Your task to perform on an android device: toggle improve location accuracy Image 0: 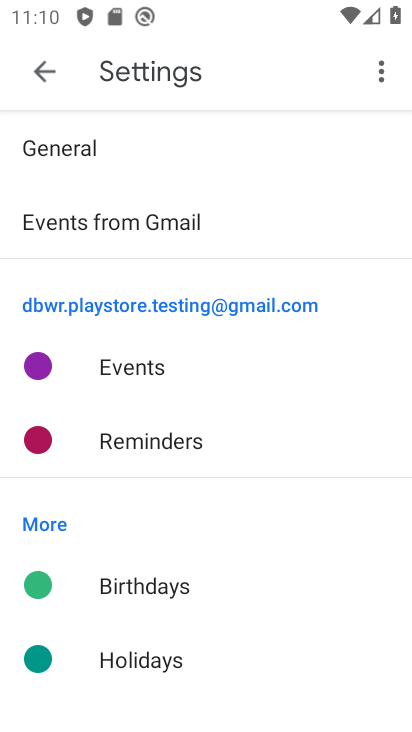
Step 0: press home button
Your task to perform on an android device: toggle improve location accuracy Image 1: 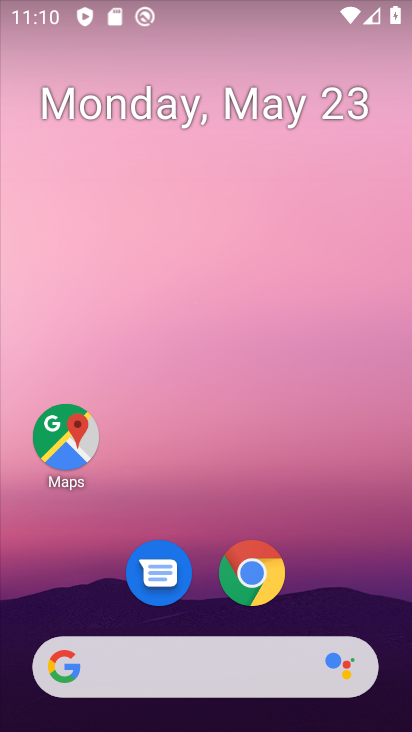
Step 1: drag from (385, 611) to (355, 280)
Your task to perform on an android device: toggle improve location accuracy Image 2: 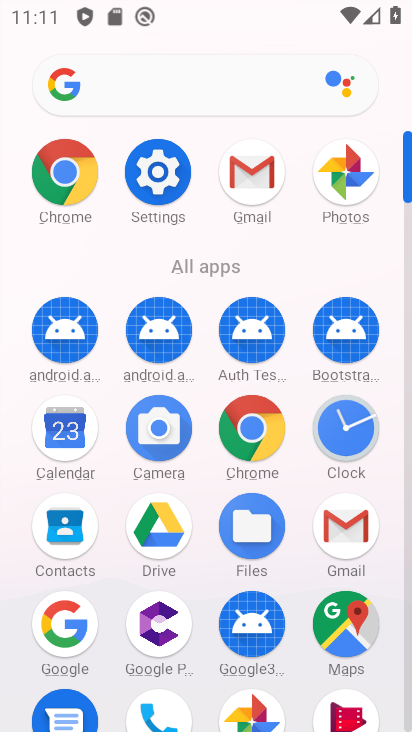
Step 2: drag from (391, 651) to (380, 359)
Your task to perform on an android device: toggle improve location accuracy Image 3: 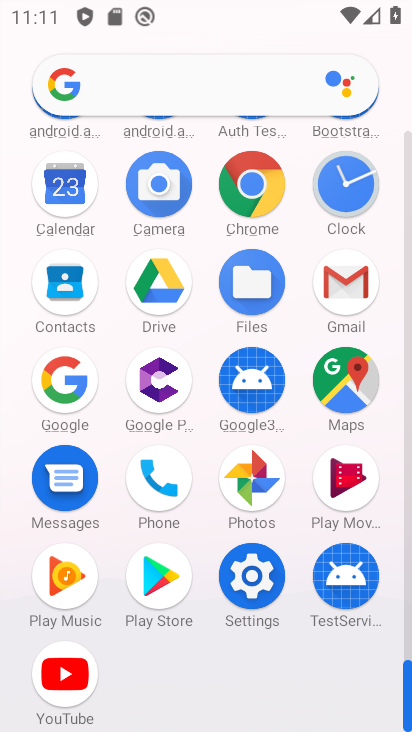
Step 3: click (255, 585)
Your task to perform on an android device: toggle improve location accuracy Image 4: 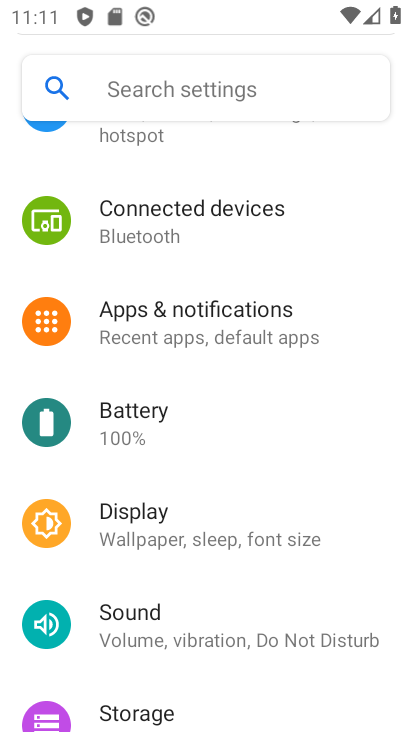
Step 4: drag from (383, 328) to (387, 436)
Your task to perform on an android device: toggle improve location accuracy Image 5: 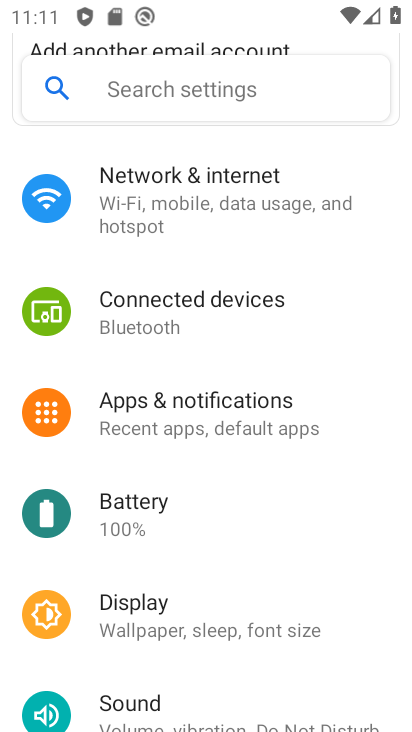
Step 5: drag from (374, 334) to (343, 521)
Your task to perform on an android device: toggle improve location accuracy Image 6: 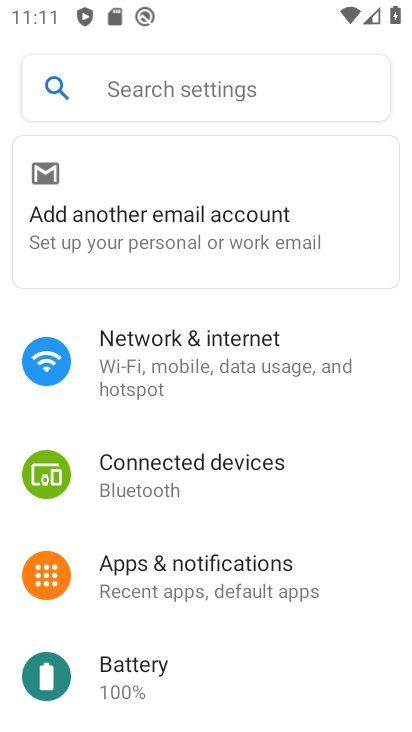
Step 6: drag from (379, 350) to (370, 502)
Your task to perform on an android device: toggle improve location accuracy Image 7: 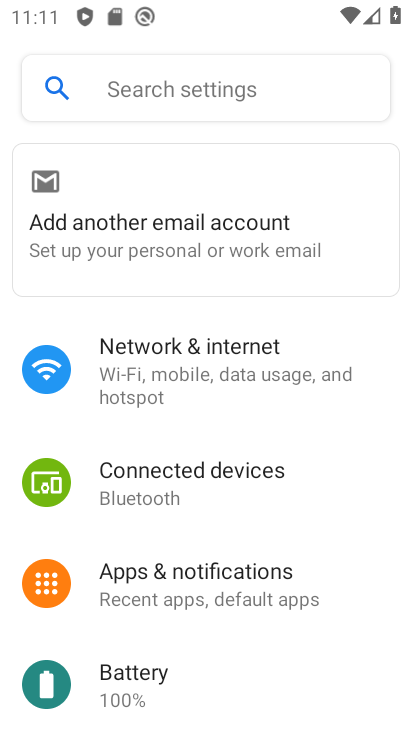
Step 7: drag from (390, 645) to (378, 538)
Your task to perform on an android device: toggle improve location accuracy Image 8: 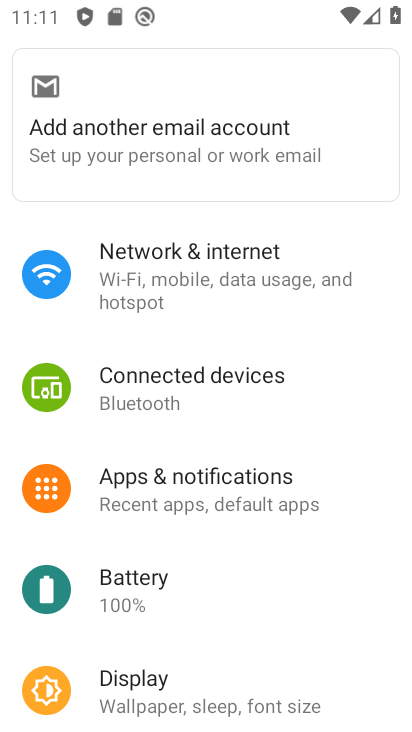
Step 8: drag from (368, 668) to (339, 538)
Your task to perform on an android device: toggle improve location accuracy Image 9: 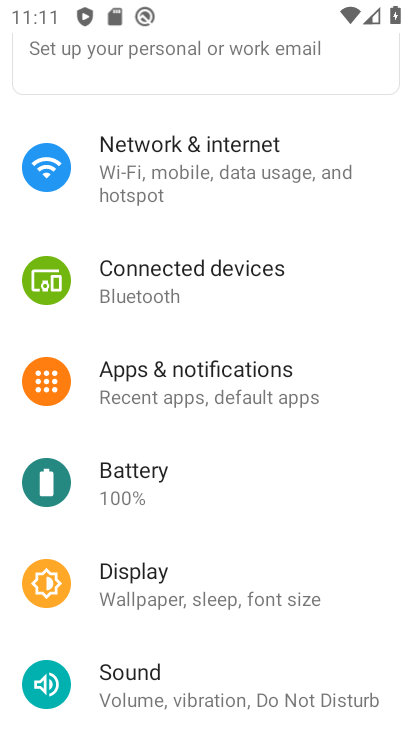
Step 9: drag from (367, 650) to (370, 510)
Your task to perform on an android device: toggle improve location accuracy Image 10: 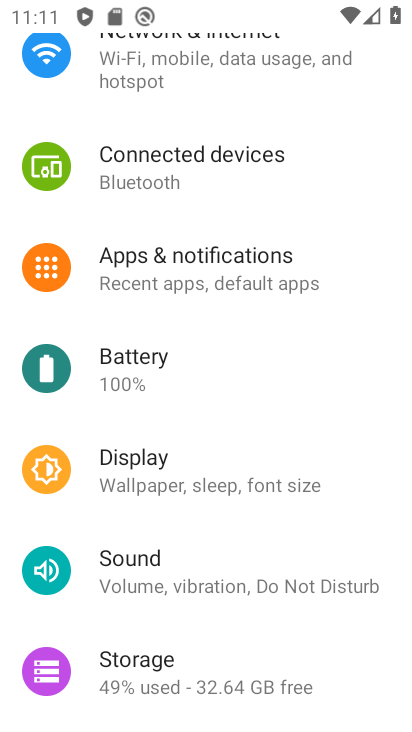
Step 10: drag from (359, 681) to (363, 523)
Your task to perform on an android device: toggle improve location accuracy Image 11: 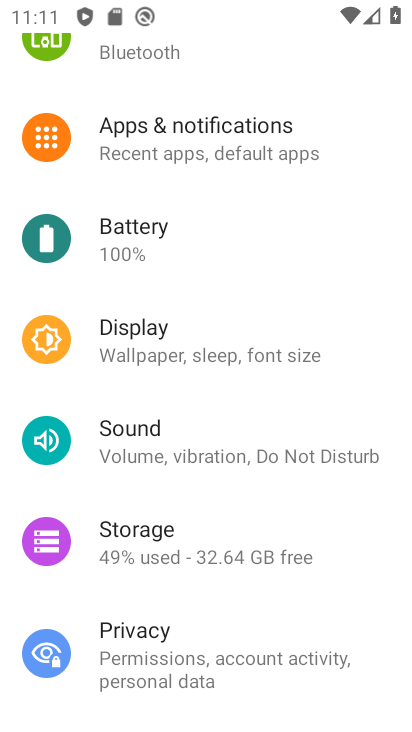
Step 11: drag from (380, 691) to (365, 547)
Your task to perform on an android device: toggle improve location accuracy Image 12: 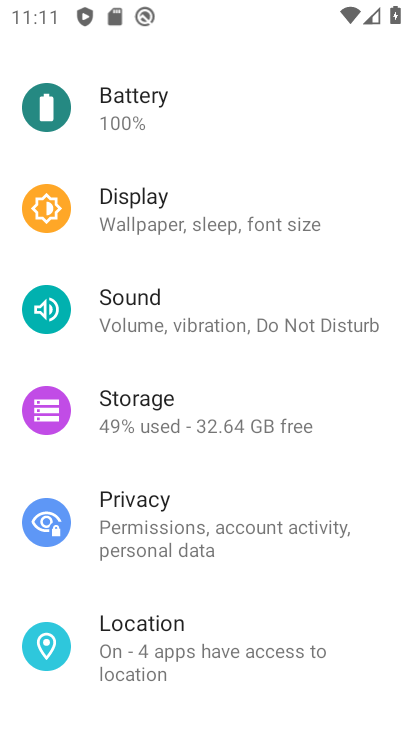
Step 12: drag from (362, 675) to (350, 537)
Your task to perform on an android device: toggle improve location accuracy Image 13: 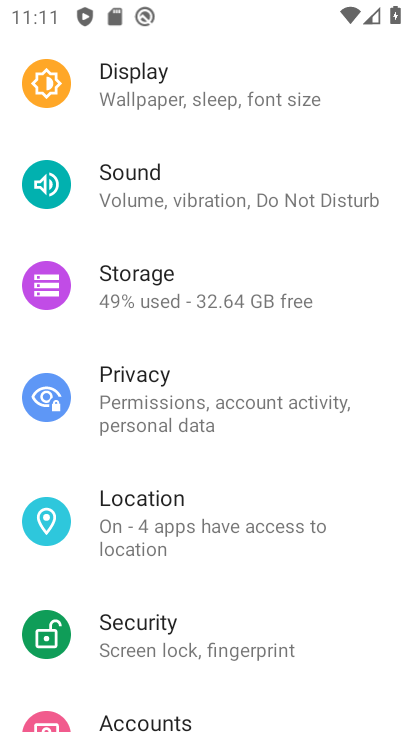
Step 13: drag from (377, 660) to (363, 576)
Your task to perform on an android device: toggle improve location accuracy Image 14: 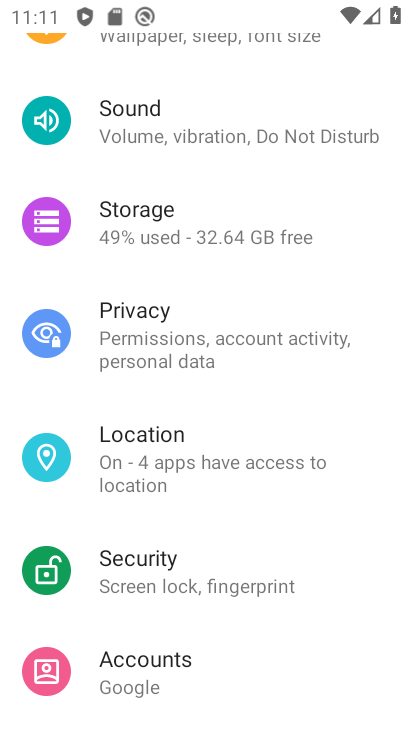
Step 14: click (299, 464)
Your task to perform on an android device: toggle improve location accuracy Image 15: 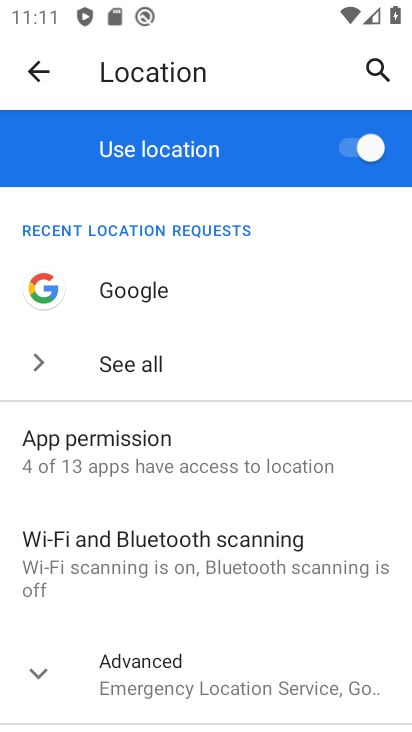
Step 15: click (219, 688)
Your task to perform on an android device: toggle improve location accuracy Image 16: 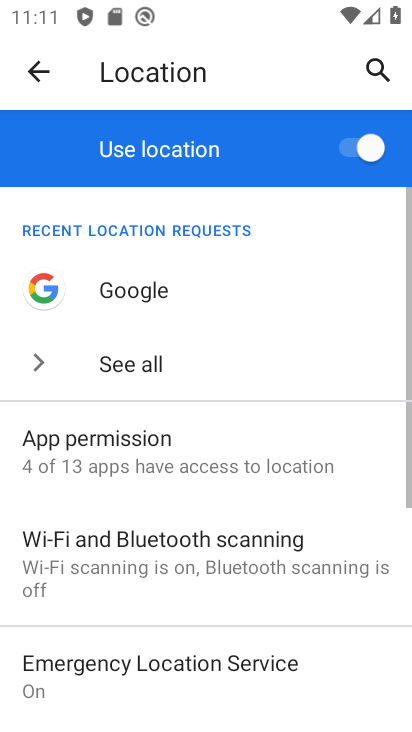
Step 16: drag from (313, 642) to (301, 441)
Your task to perform on an android device: toggle improve location accuracy Image 17: 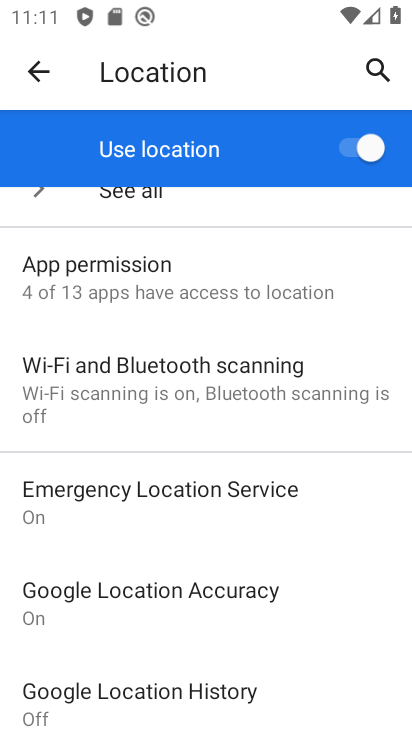
Step 17: drag from (324, 638) to (325, 507)
Your task to perform on an android device: toggle improve location accuracy Image 18: 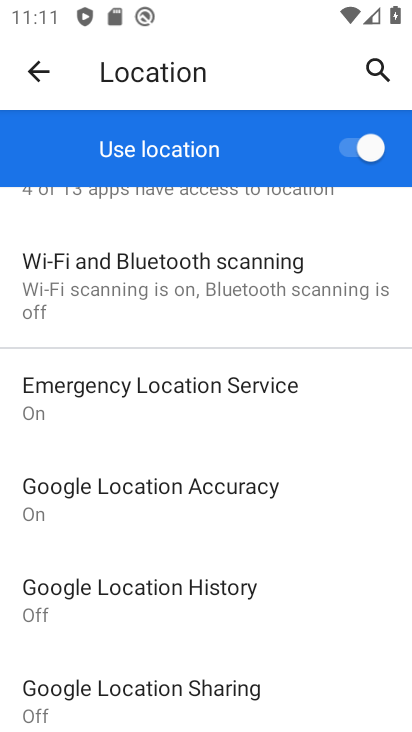
Step 18: drag from (342, 655) to (364, 539)
Your task to perform on an android device: toggle improve location accuracy Image 19: 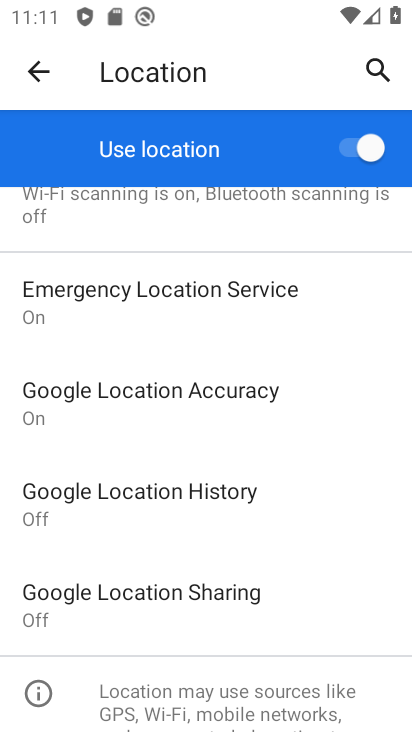
Step 19: click (182, 397)
Your task to perform on an android device: toggle improve location accuracy Image 20: 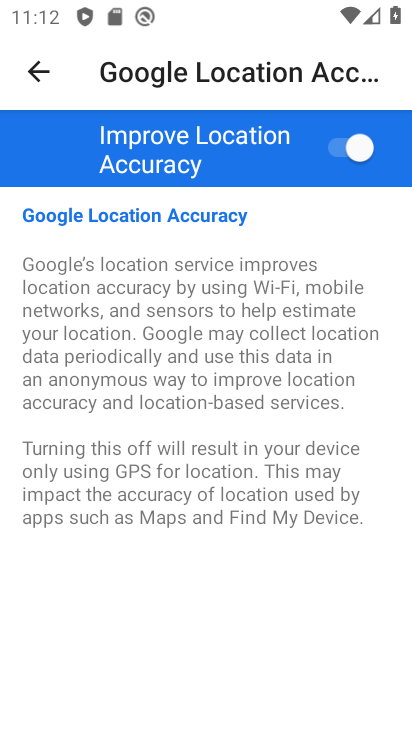
Step 20: click (355, 149)
Your task to perform on an android device: toggle improve location accuracy Image 21: 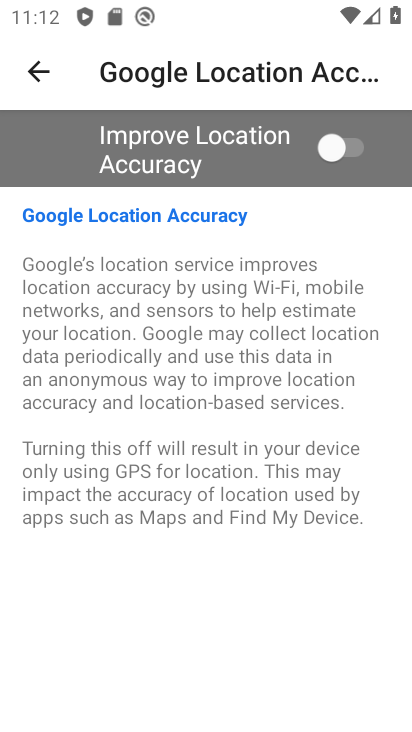
Step 21: task complete